Your task to perform on an android device: Go to Yahoo.com Image 0: 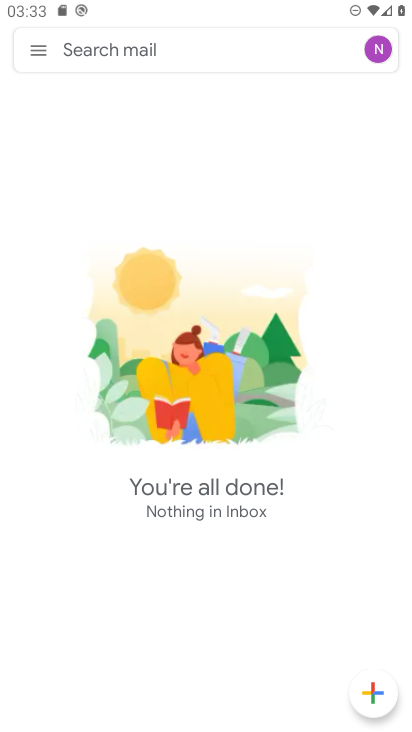
Step 0: press home button
Your task to perform on an android device: Go to Yahoo.com Image 1: 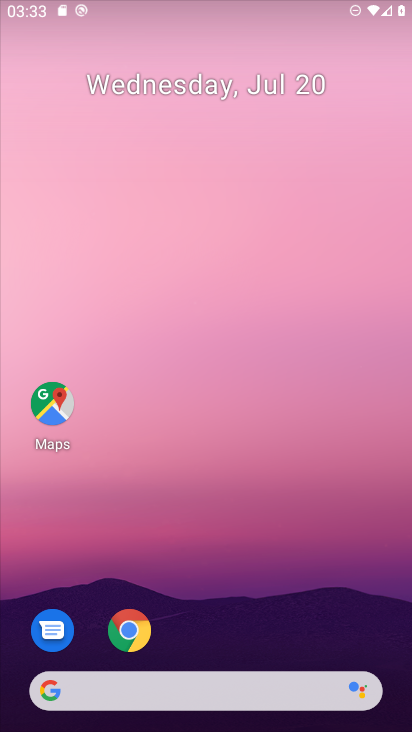
Step 1: drag from (314, 272) to (316, 107)
Your task to perform on an android device: Go to Yahoo.com Image 2: 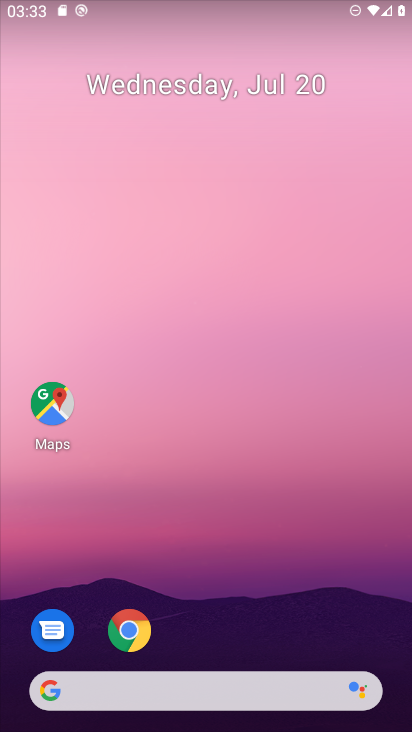
Step 2: drag from (370, 571) to (372, 37)
Your task to perform on an android device: Go to Yahoo.com Image 3: 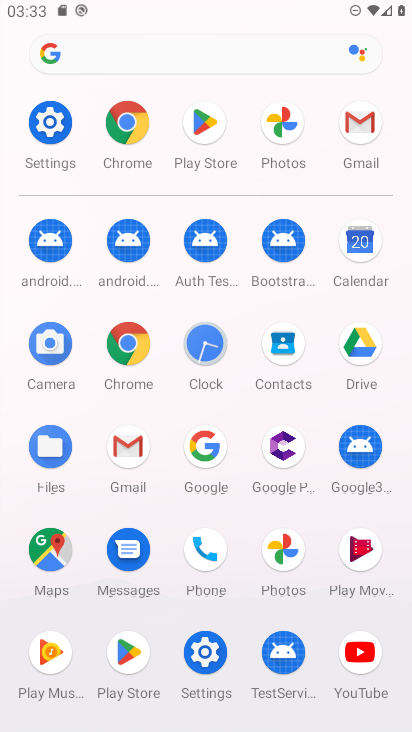
Step 3: click (140, 348)
Your task to perform on an android device: Go to Yahoo.com Image 4: 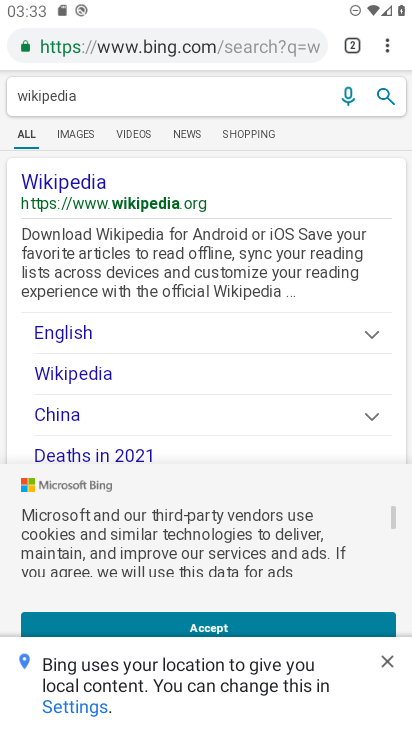
Step 4: click (241, 46)
Your task to perform on an android device: Go to Yahoo.com Image 5: 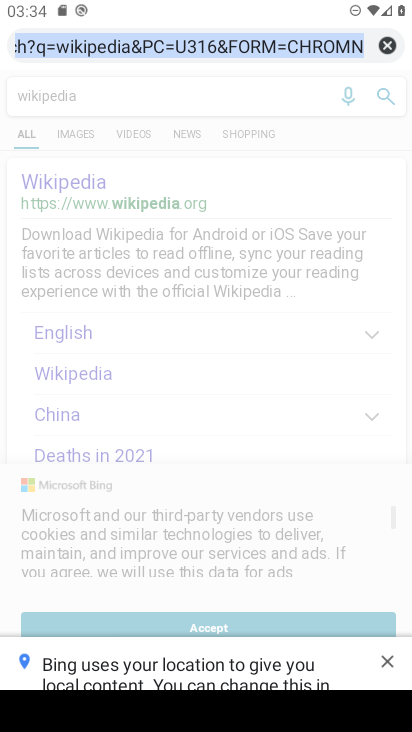
Step 5: type "yahoo.com"
Your task to perform on an android device: Go to Yahoo.com Image 6: 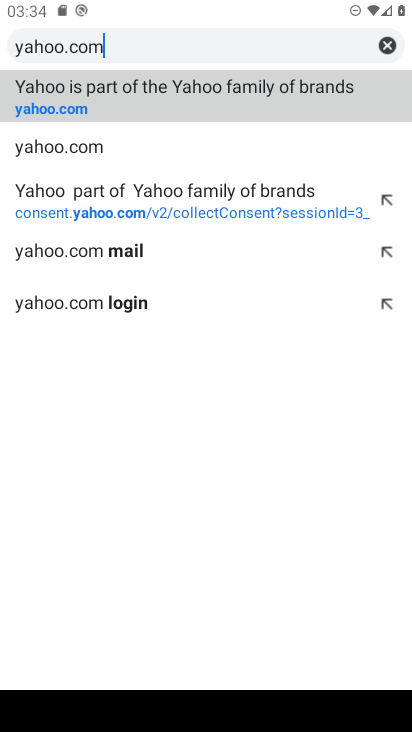
Step 6: click (135, 132)
Your task to perform on an android device: Go to Yahoo.com Image 7: 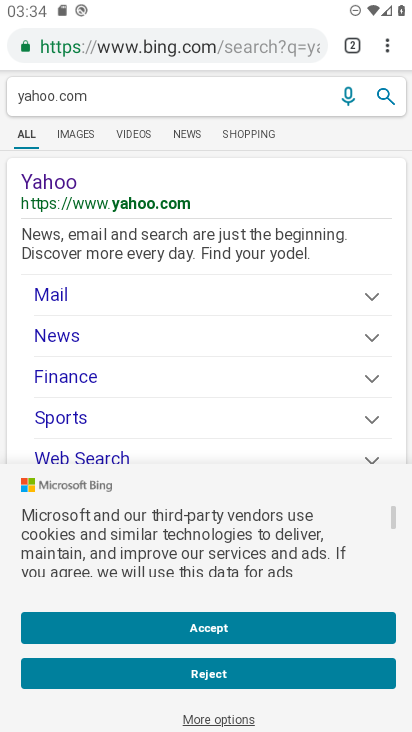
Step 7: task complete